Your task to perform on an android device: show emergency info Image 0: 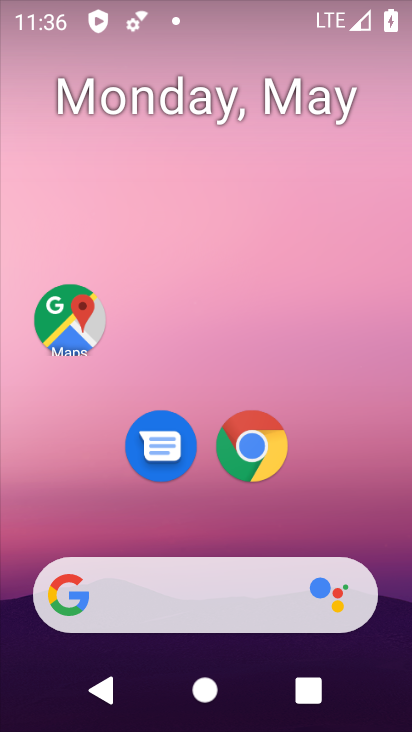
Step 0: drag from (338, 498) to (219, 11)
Your task to perform on an android device: show emergency info Image 1: 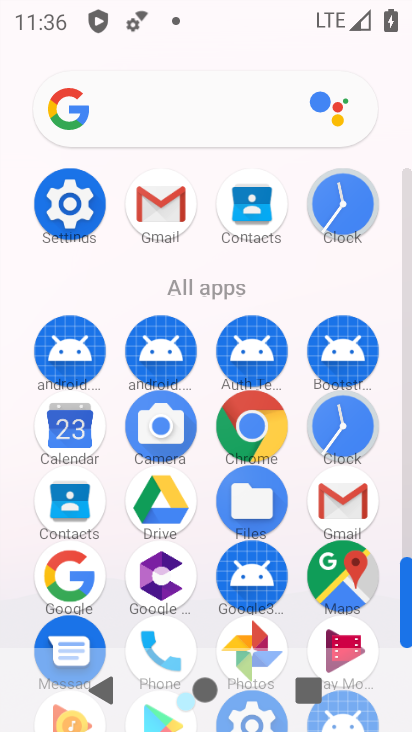
Step 1: click (69, 203)
Your task to perform on an android device: show emergency info Image 2: 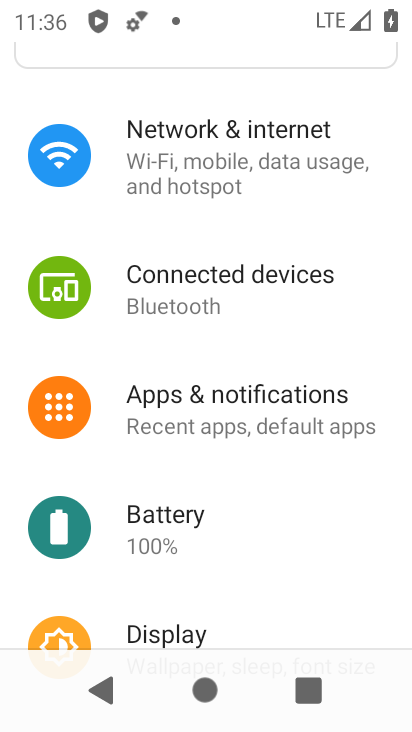
Step 2: drag from (251, 537) to (198, 88)
Your task to perform on an android device: show emergency info Image 3: 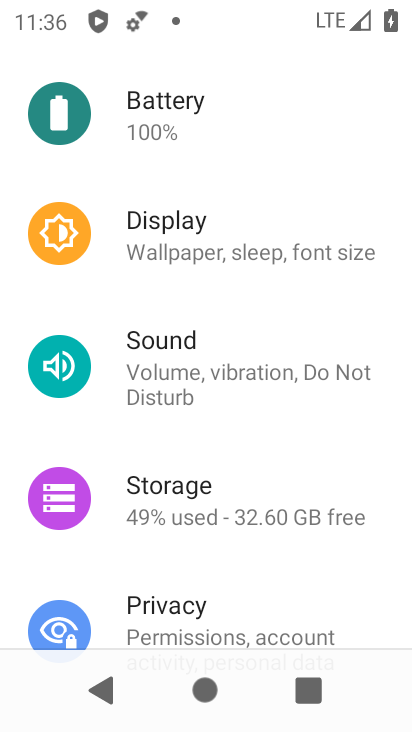
Step 3: drag from (246, 564) to (200, 168)
Your task to perform on an android device: show emergency info Image 4: 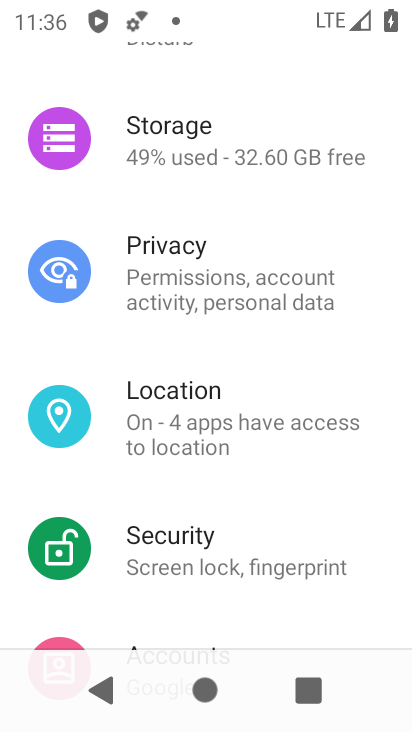
Step 4: drag from (240, 529) to (230, 229)
Your task to perform on an android device: show emergency info Image 5: 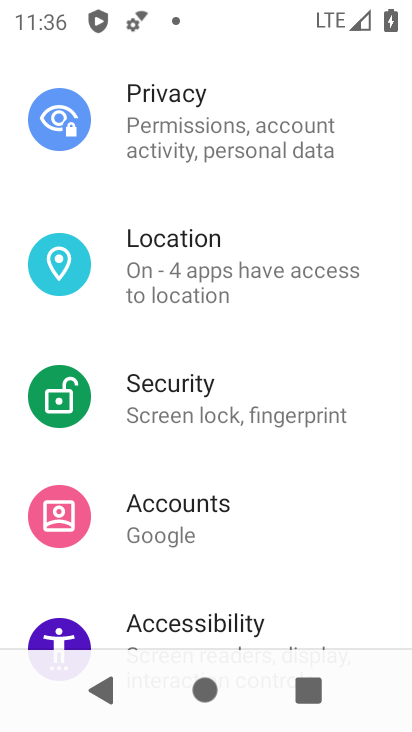
Step 5: drag from (260, 516) to (229, 148)
Your task to perform on an android device: show emergency info Image 6: 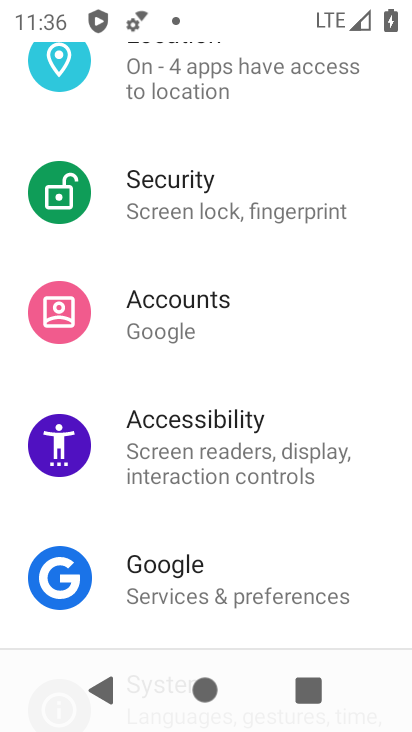
Step 6: drag from (237, 527) to (180, 178)
Your task to perform on an android device: show emergency info Image 7: 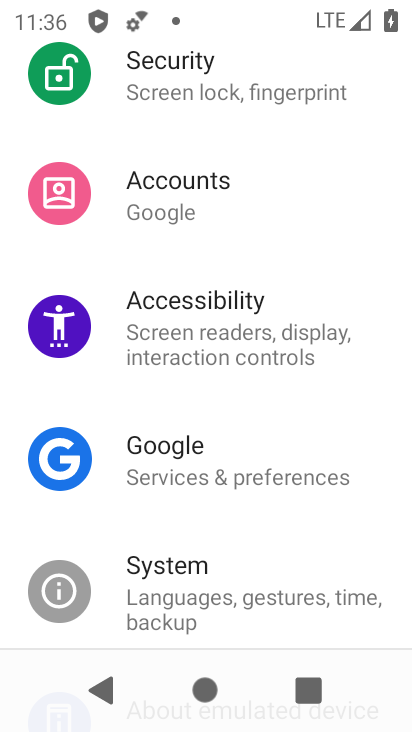
Step 7: drag from (223, 528) to (163, 151)
Your task to perform on an android device: show emergency info Image 8: 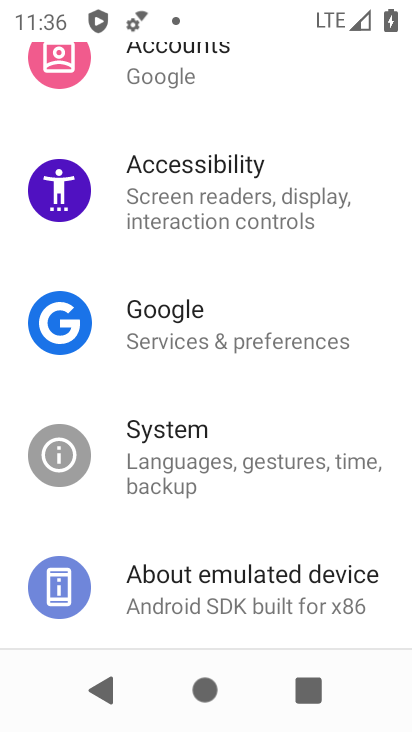
Step 8: click (216, 583)
Your task to perform on an android device: show emergency info Image 9: 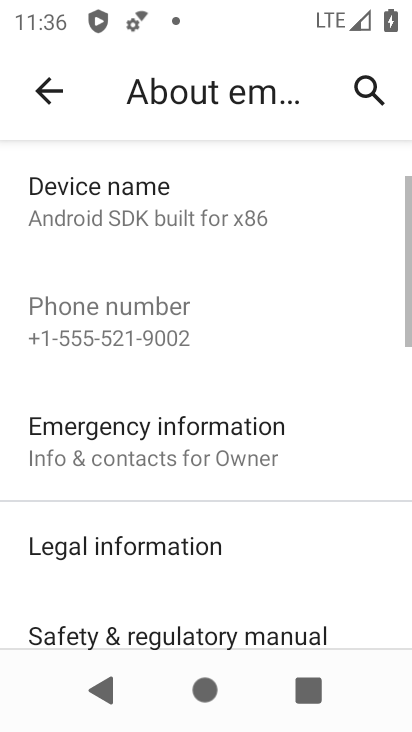
Step 9: click (130, 446)
Your task to perform on an android device: show emergency info Image 10: 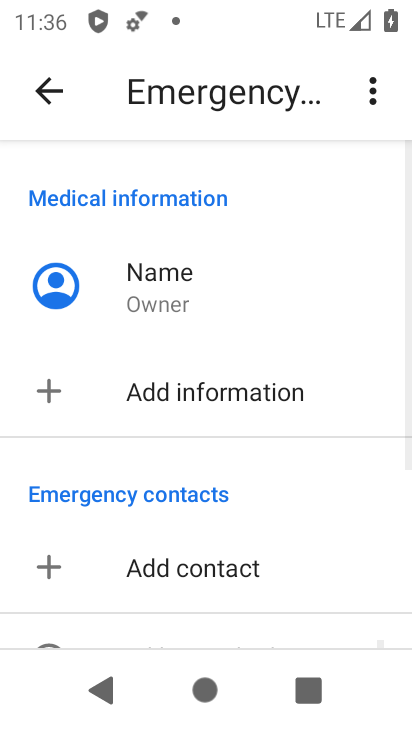
Step 10: task complete